Your task to perform on an android device: search for starred emails in the gmail app Image 0: 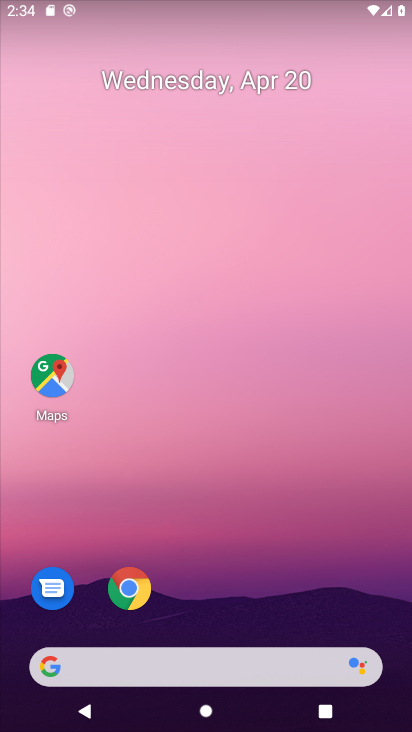
Step 0: drag from (344, 595) to (335, 191)
Your task to perform on an android device: search for starred emails in the gmail app Image 1: 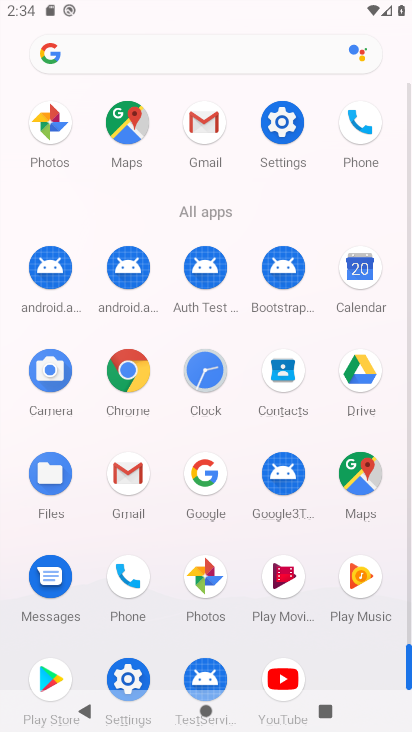
Step 1: click (131, 474)
Your task to perform on an android device: search for starred emails in the gmail app Image 2: 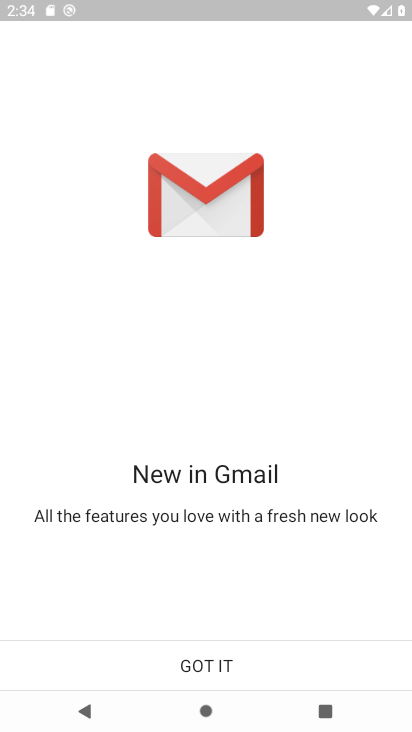
Step 2: click (219, 661)
Your task to perform on an android device: search for starred emails in the gmail app Image 3: 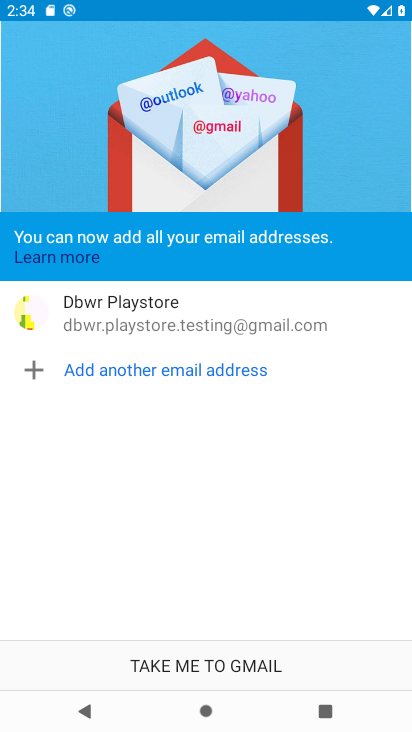
Step 3: click (216, 663)
Your task to perform on an android device: search for starred emails in the gmail app Image 4: 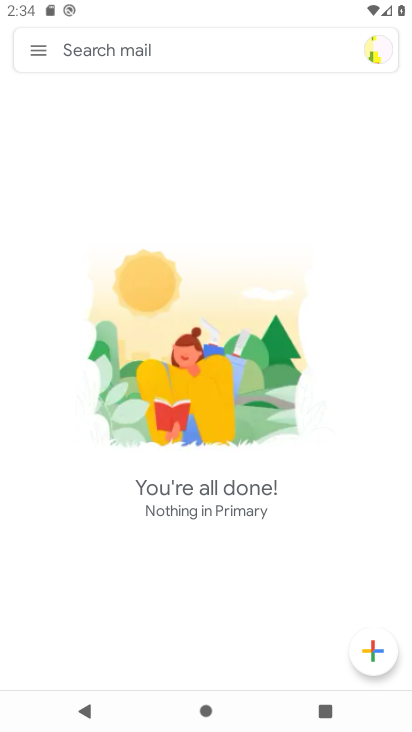
Step 4: click (47, 46)
Your task to perform on an android device: search for starred emails in the gmail app Image 5: 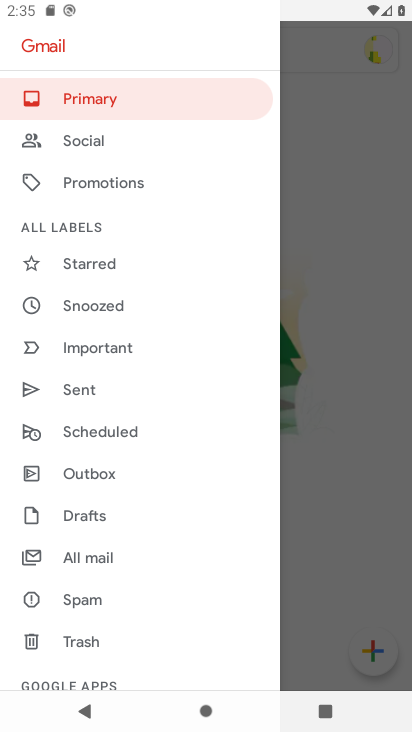
Step 5: click (98, 259)
Your task to perform on an android device: search for starred emails in the gmail app Image 6: 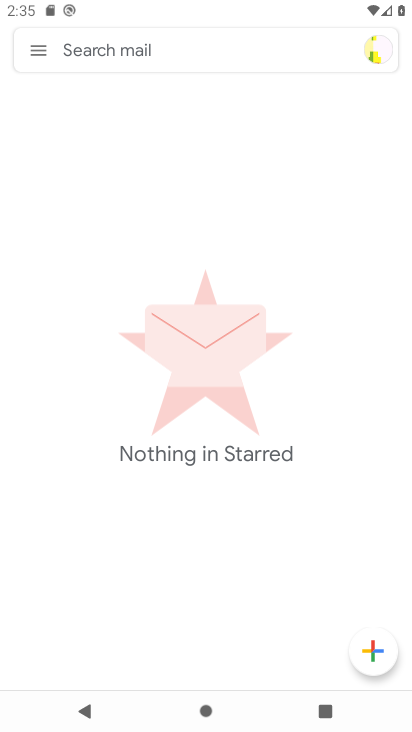
Step 6: task complete